Your task to perform on an android device: add a contact Image 0: 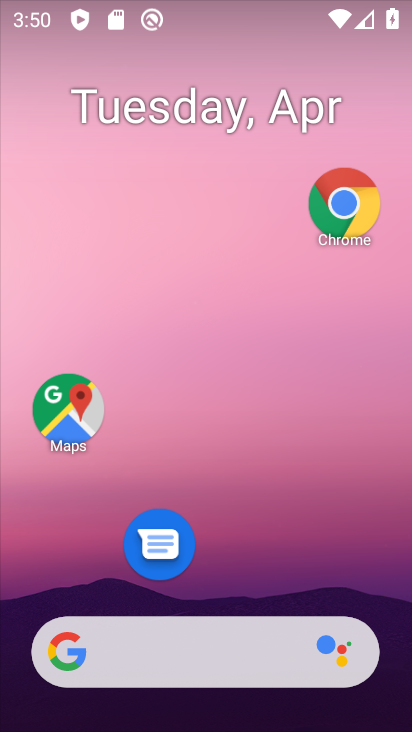
Step 0: drag from (227, 517) to (184, 5)
Your task to perform on an android device: add a contact Image 1: 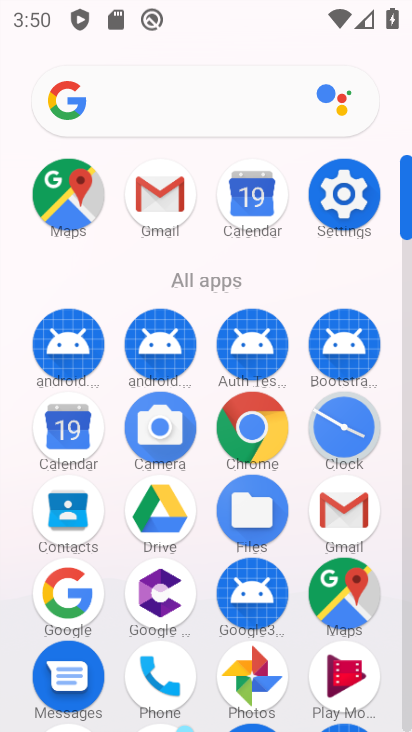
Step 1: click (59, 529)
Your task to perform on an android device: add a contact Image 2: 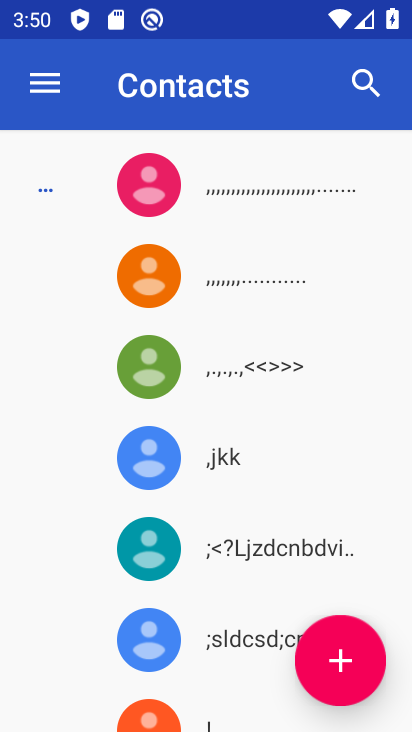
Step 2: click (326, 653)
Your task to perform on an android device: add a contact Image 3: 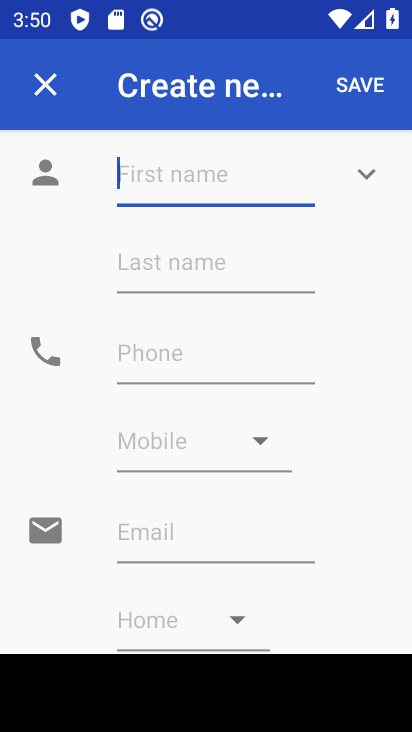
Step 3: type "frods"
Your task to perform on an android device: add a contact Image 4: 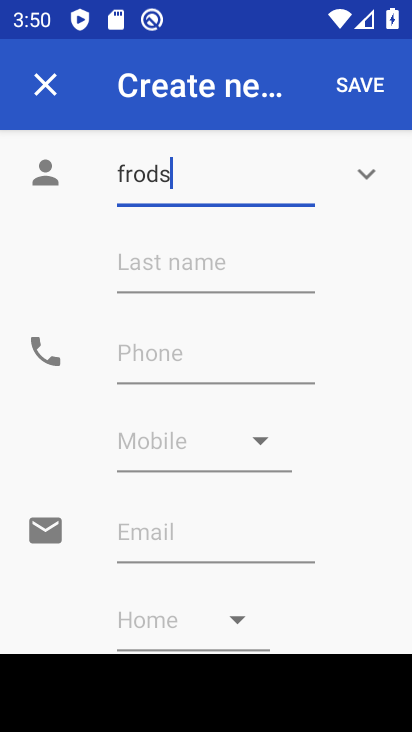
Step 4: click (374, 80)
Your task to perform on an android device: add a contact Image 5: 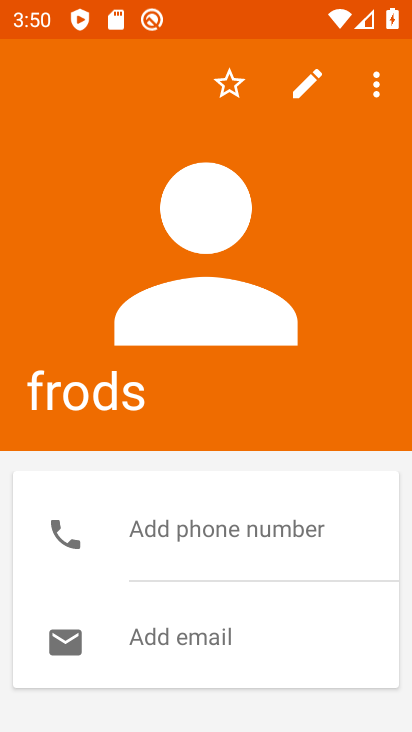
Step 5: task complete